Your task to perform on an android device: toggle priority inbox in the gmail app Image 0: 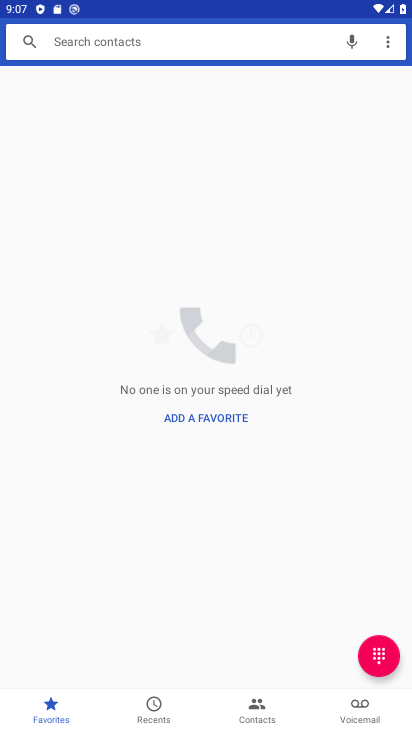
Step 0: press home button
Your task to perform on an android device: toggle priority inbox in the gmail app Image 1: 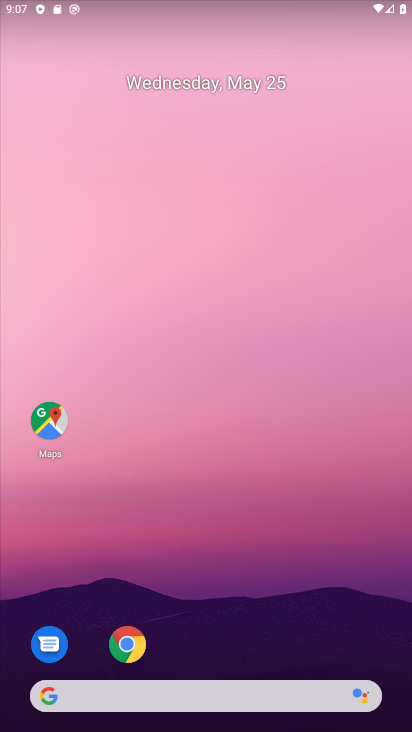
Step 1: drag from (233, 635) to (235, 0)
Your task to perform on an android device: toggle priority inbox in the gmail app Image 2: 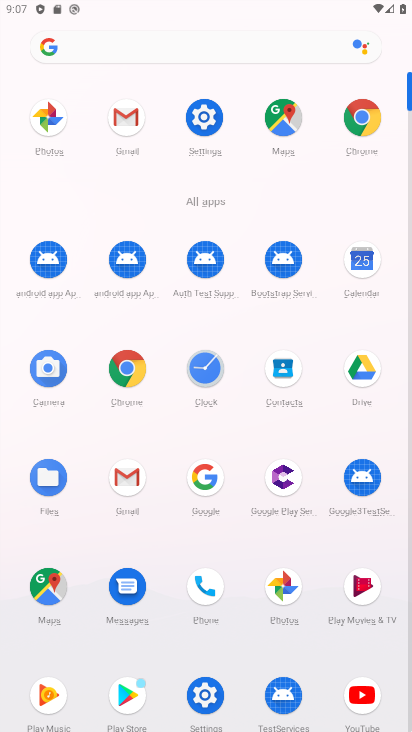
Step 2: click (127, 122)
Your task to perform on an android device: toggle priority inbox in the gmail app Image 3: 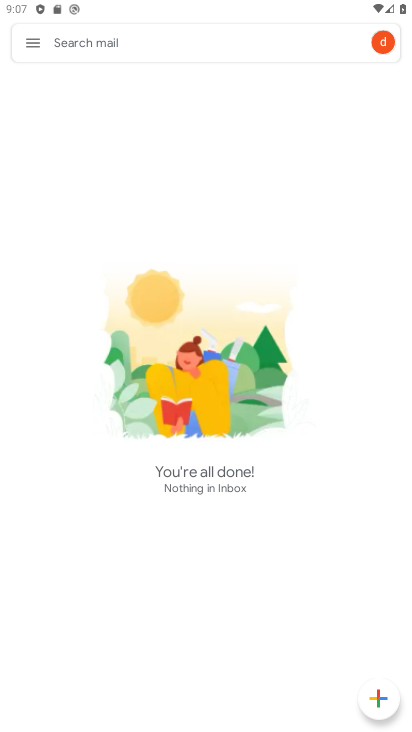
Step 3: click (24, 46)
Your task to perform on an android device: toggle priority inbox in the gmail app Image 4: 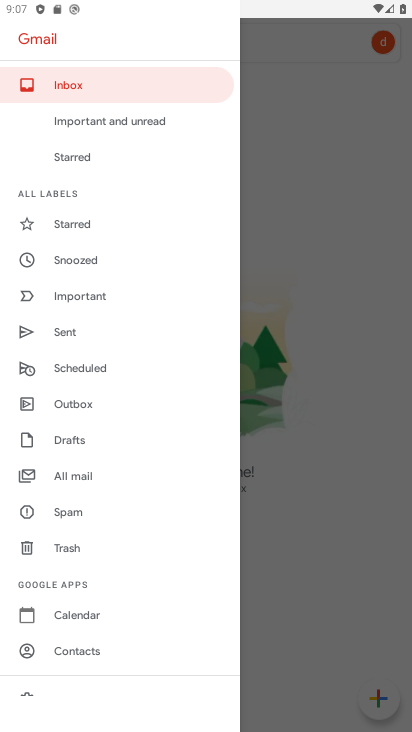
Step 4: drag from (114, 635) to (123, 232)
Your task to perform on an android device: toggle priority inbox in the gmail app Image 5: 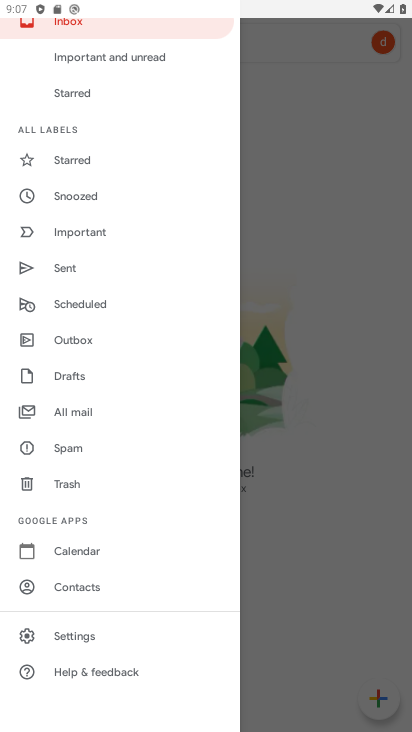
Step 5: click (74, 639)
Your task to perform on an android device: toggle priority inbox in the gmail app Image 6: 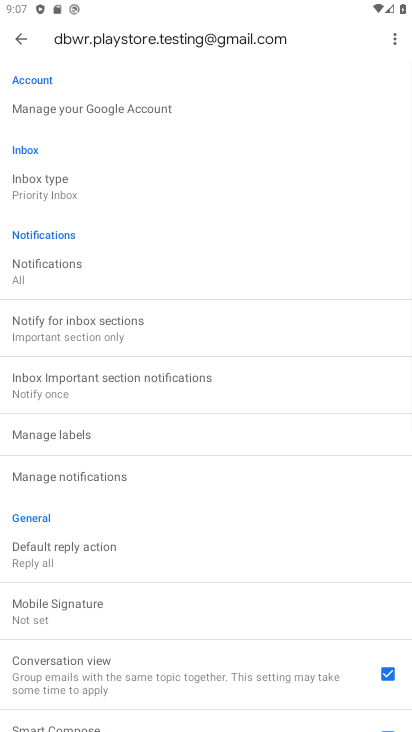
Step 6: click (34, 185)
Your task to perform on an android device: toggle priority inbox in the gmail app Image 7: 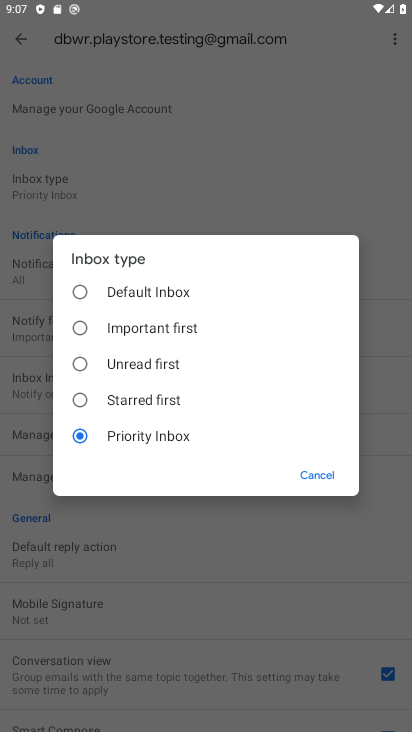
Step 7: click (81, 288)
Your task to perform on an android device: toggle priority inbox in the gmail app Image 8: 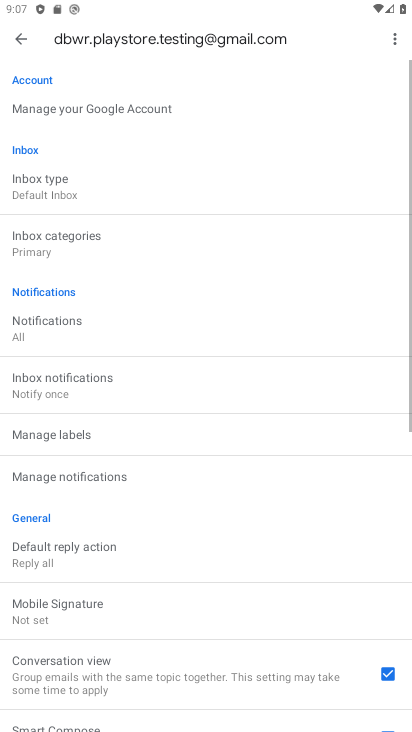
Step 8: task complete